Your task to perform on an android device: check storage Image 0: 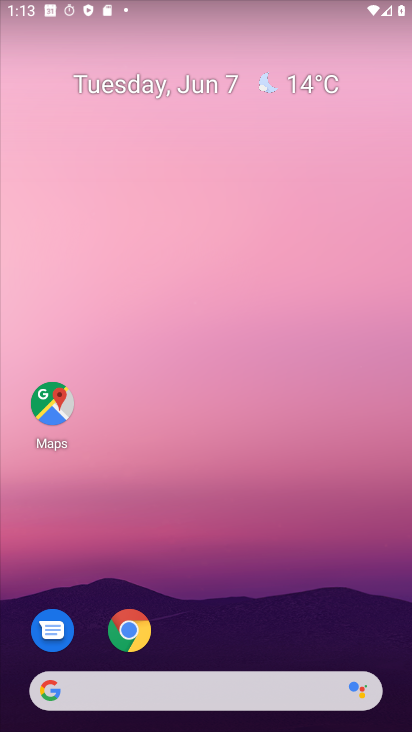
Step 0: drag from (224, 636) to (248, 109)
Your task to perform on an android device: check storage Image 1: 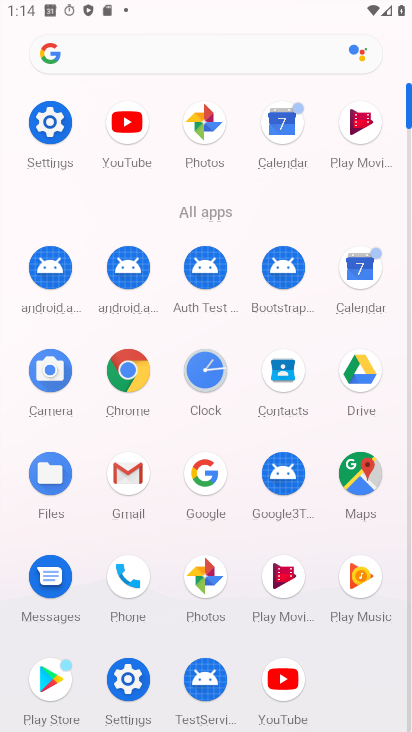
Step 1: click (47, 132)
Your task to perform on an android device: check storage Image 2: 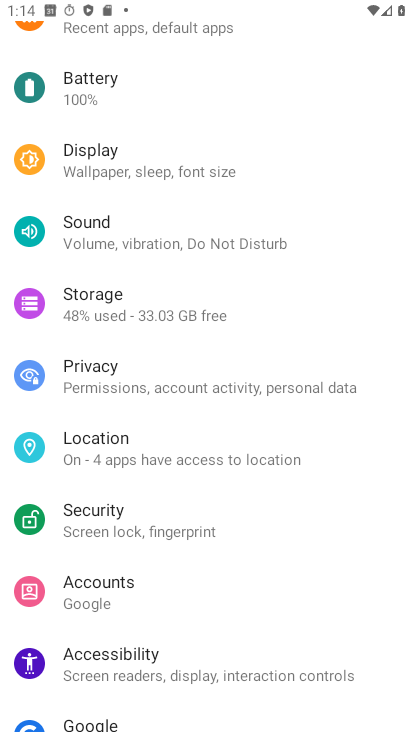
Step 2: click (139, 312)
Your task to perform on an android device: check storage Image 3: 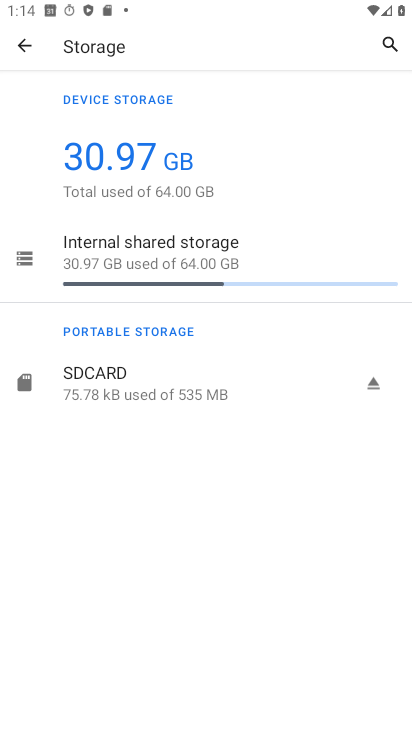
Step 3: click (122, 259)
Your task to perform on an android device: check storage Image 4: 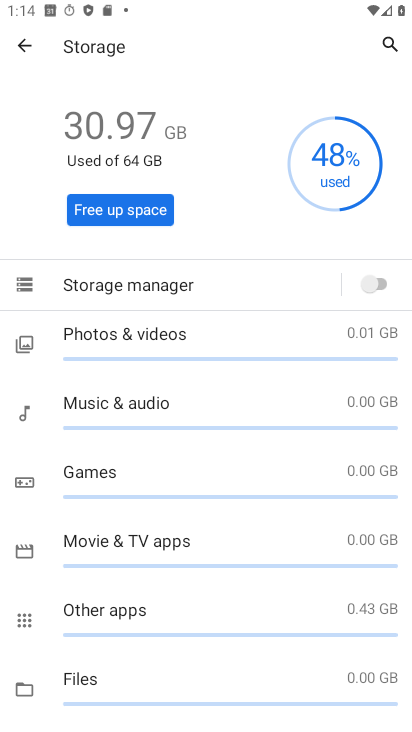
Step 4: task complete